Your task to perform on an android device: change timer sound Image 0: 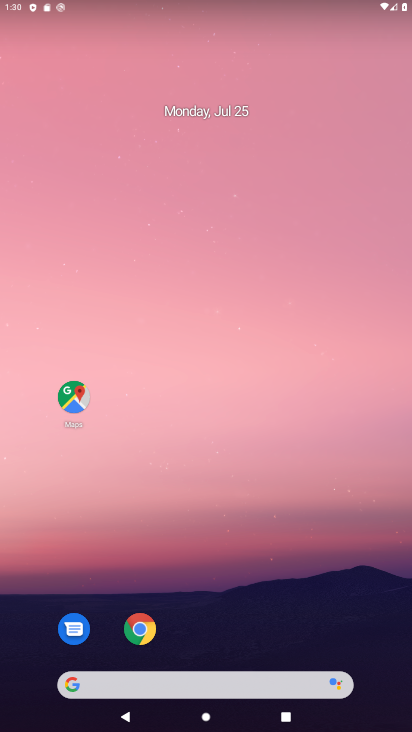
Step 0: drag from (291, 543) to (383, 52)
Your task to perform on an android device: change timer sound Image 1: 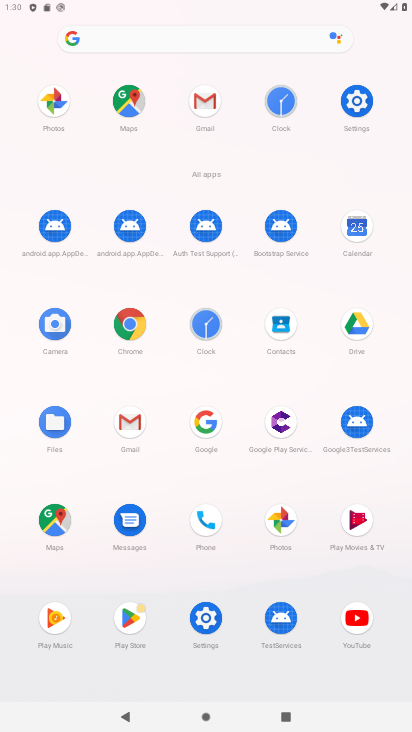
Step 1: click (281, 107)
Your task to perform on an android device: change timer sound Image 2: 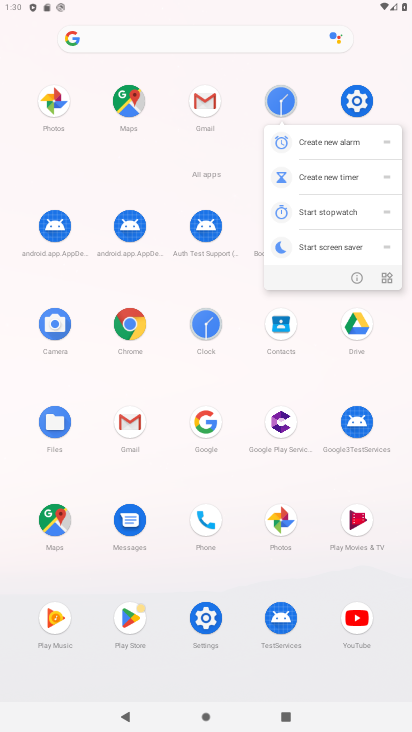
Step 2: click (279, 115)
Your task to perform on an android device: change timer sound Image 3: 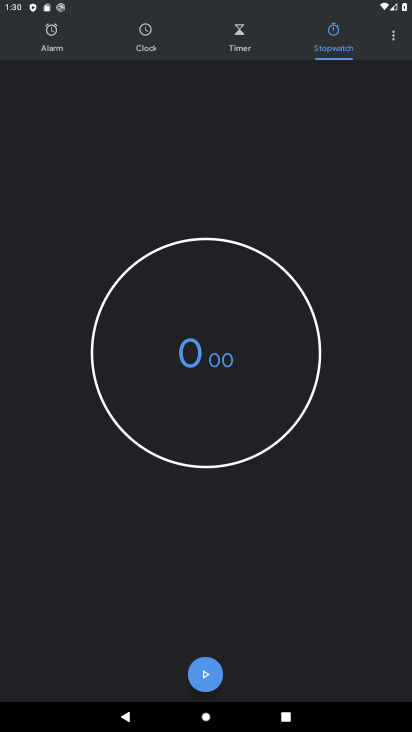
Step 3: click (385, 32)
Your task to perform on an android device: change timer sound Image 4: 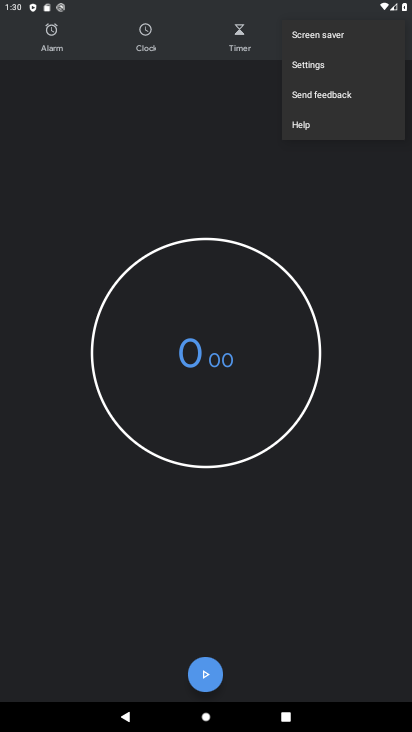
Step 4: click (323, 62)
Your task to perform on an android device: change timer sound Image 5: 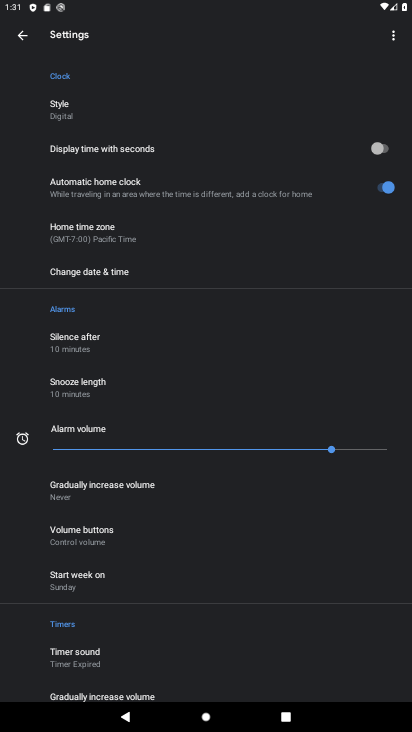
Step 5: drag from (119, 470) to (164, 98)
Your task to perform on an android device: change timer sound Image 6: 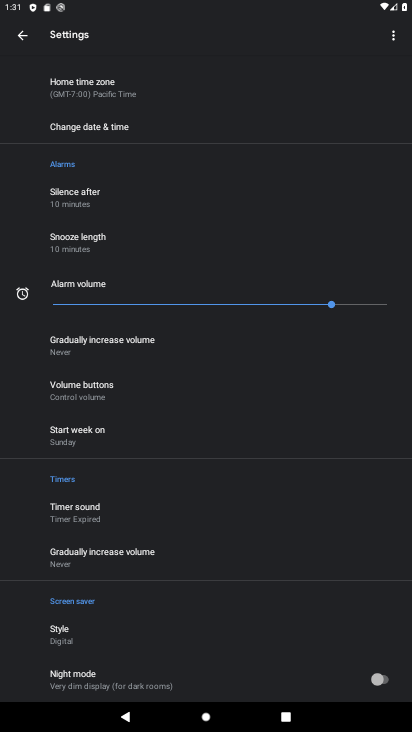
Step 6: click (62, 511)
Your task to perform on an android device: change timer sound Image 7: 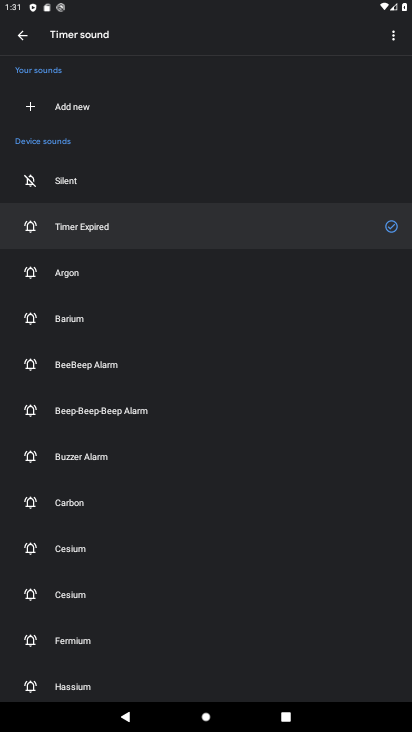
Step 7: click (87, 457)
Your task to perform on an android device: change timer sound Image 8: 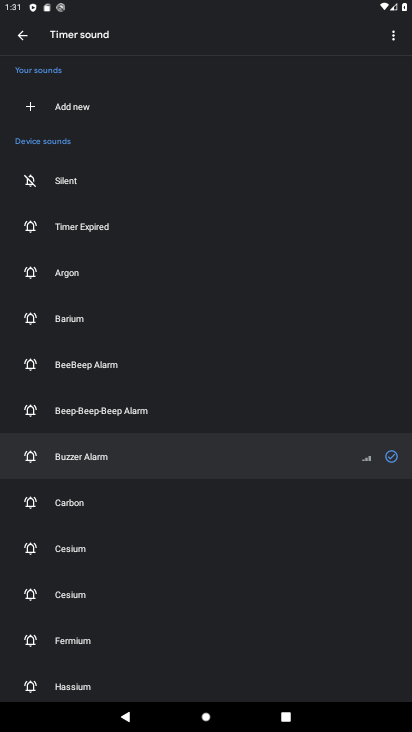
Step 8: task complete